Your task to perform on an android device: Open my contact list Image 0: 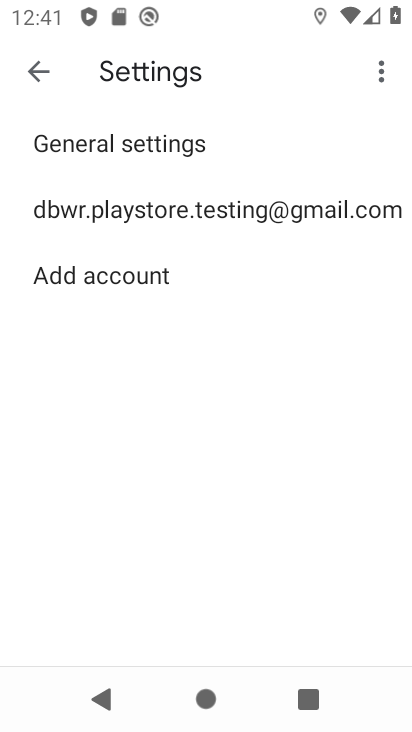
Step 0: press home button
Your task to perform on an android device: Open my contact list Image 1: 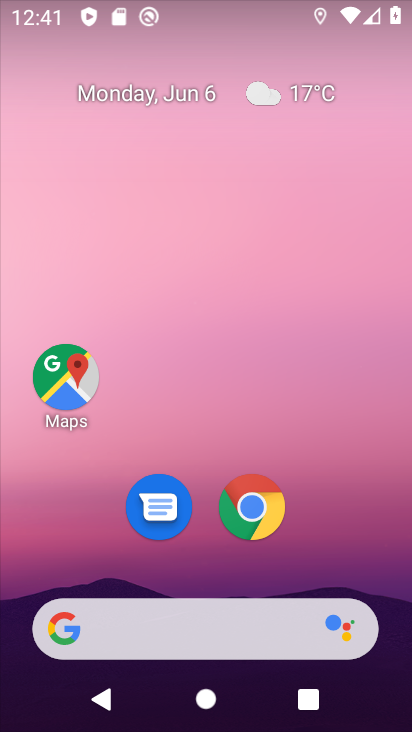
Step 1: drag from (311, 476) to (311, 14)
Your task to perform on an android device: Open my contact list Image 2: 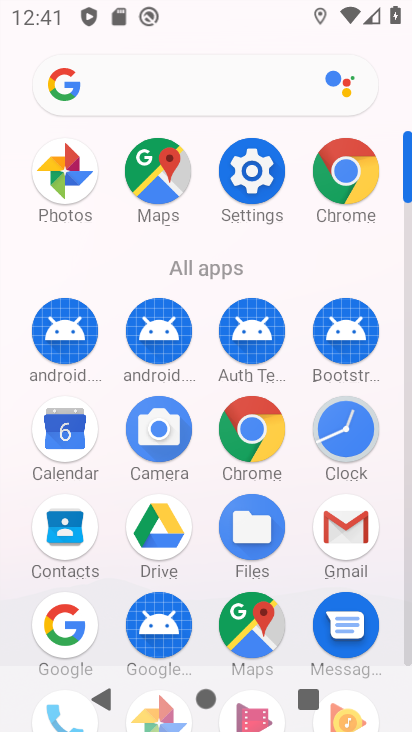
Step 2: click (71, 522)
Your task to perform on an android device: Open my contact list Image 3: 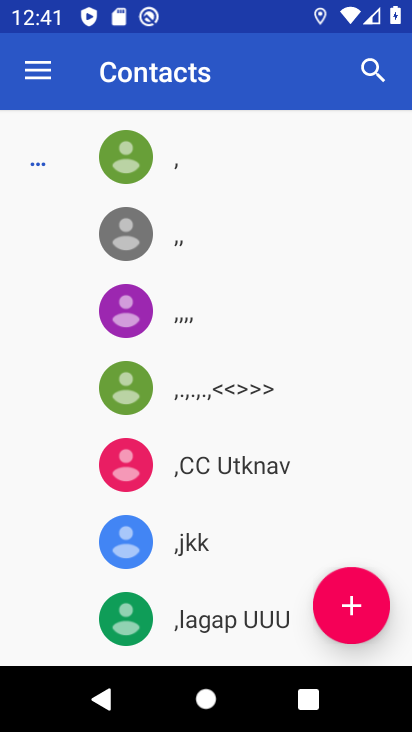
Step 3: task complete